Your task to perform on an android device: turn off translation in the chrome app Image 0: 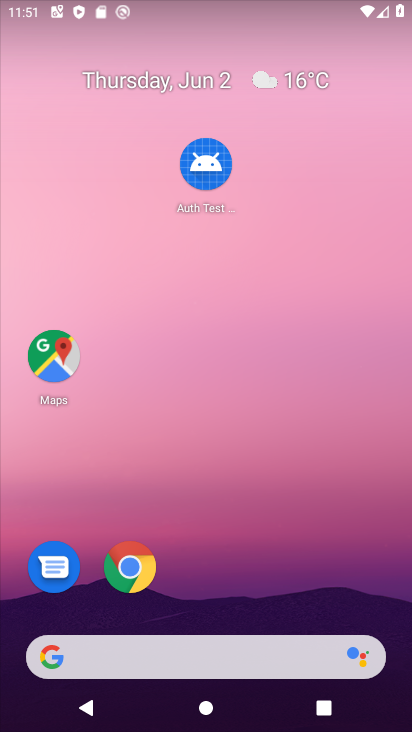
Step 0: click (123, 571)
Your task to perform on an android device: turn off translation in the chrome app Image 1: 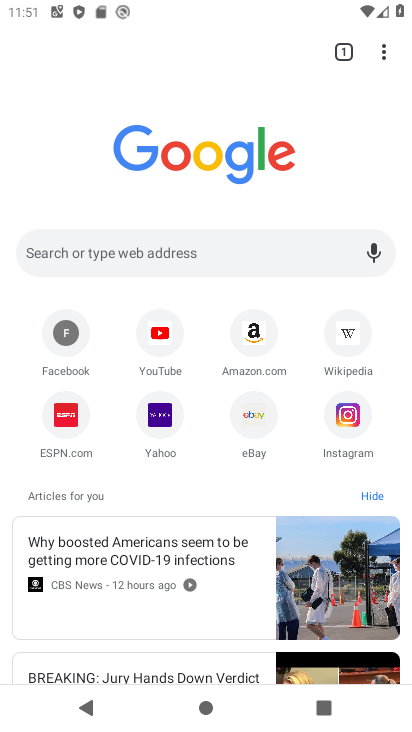
Step 1: click (391, 55)
Your task to perform on an android device: turn off translation in the chrome app Image 2: 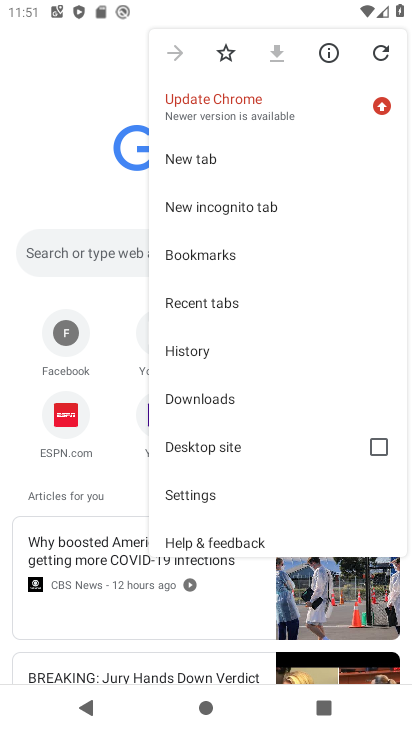
Step 2: click (190, 494)
Your task to perform on an android device: turn off translation in the chrome app Image 3: 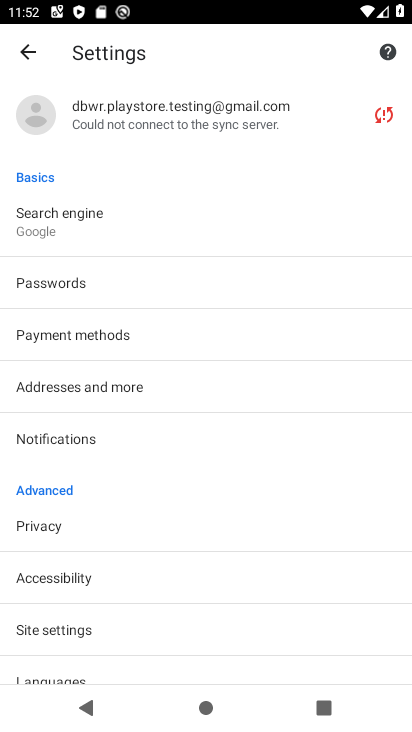
Step 3: click (49, 667)
Your task to perform on an android device: turn off translation in the chrome app Image 4: 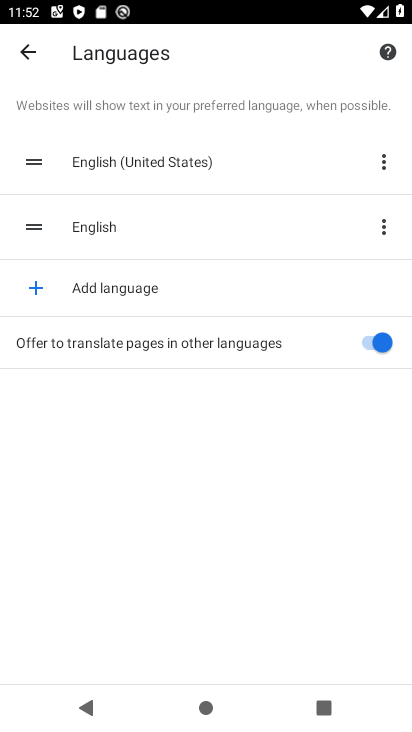
Step 4: click (378, 345)
Your task to perform on an android device: turn off translation in the chrome app Image 5: 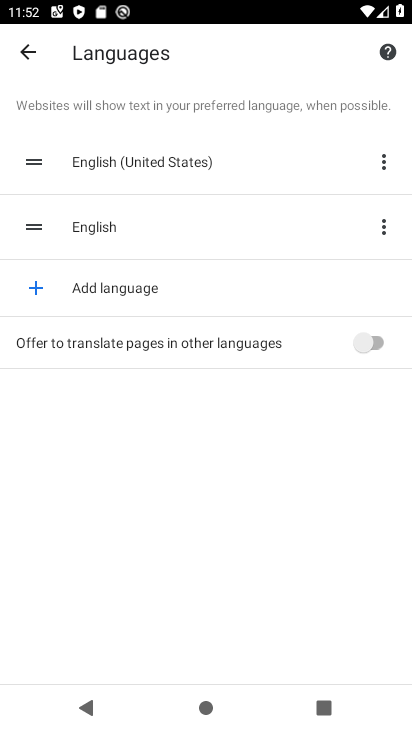
Step 5: task complete